Your task to perform on an android device: Open the calendar and show me this week's events? Image 0: 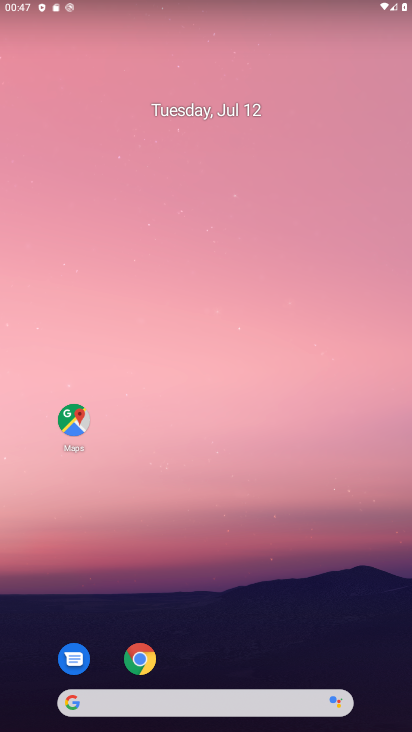
Step 0: drag from (191, 649) to (224, 168)
Your task to perform on an android device: Open the calendar and show me this week's events? Image 1: 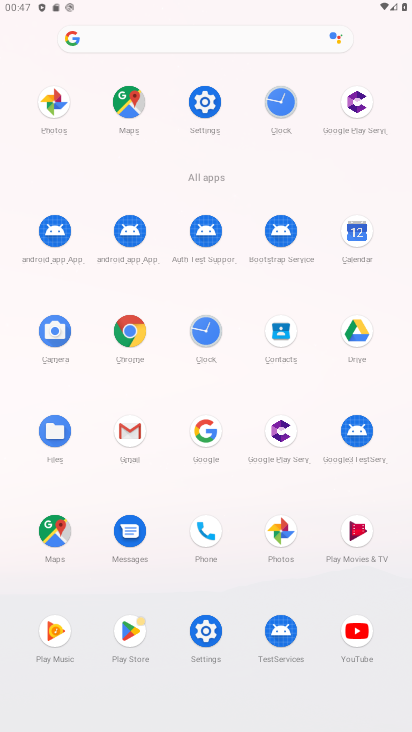
Step 1: click (362, 233)
Your task to perform on an android device: Open the calendar and show me this week's events? Image 2: 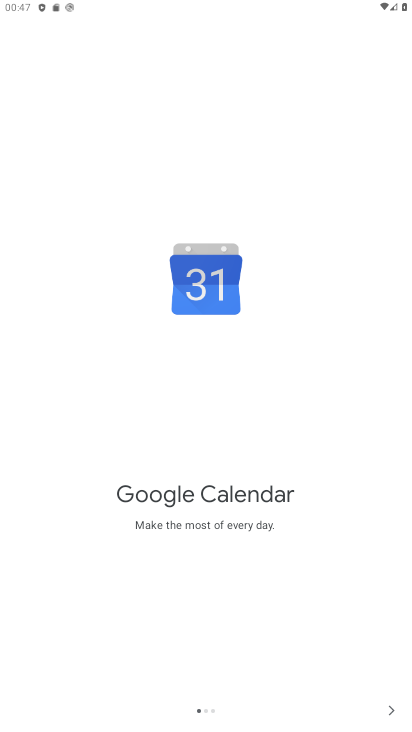
Step 2: drag from (238, 598) to (240, 376)
Your task to perform on an android device: Open the calendar and show me this week's events? Image 3: 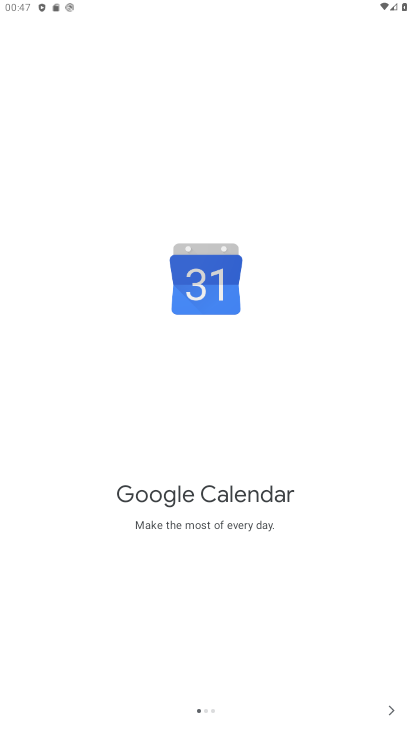
Step 3: click (391, 711)
Your task to perform on an android device: Open the calendar and show me this week's events? Image 4: 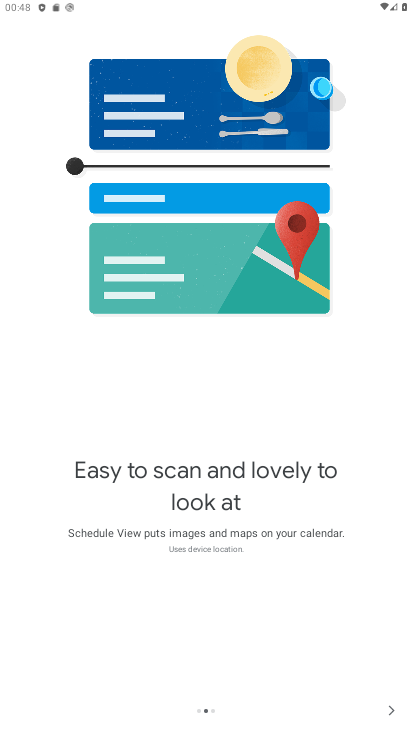
Step 4: click (391, 710)
Your task to perform on an android device: Open the calendar and show me this week's events? Image 5: 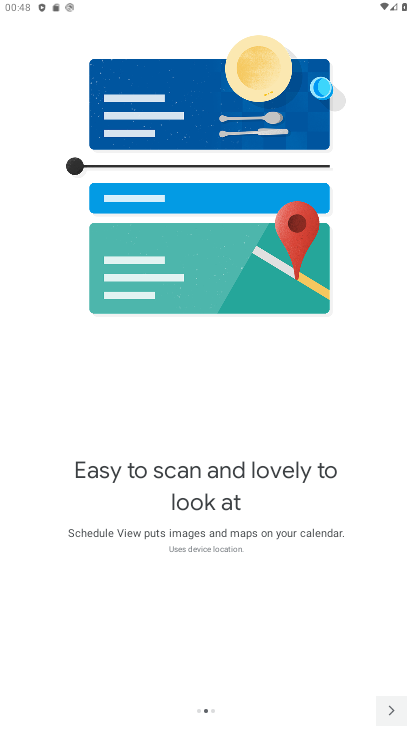
Step 5: click (391, 710)
Your task to perform on an android device: Open the calendar and show me this week's events? Image 6: 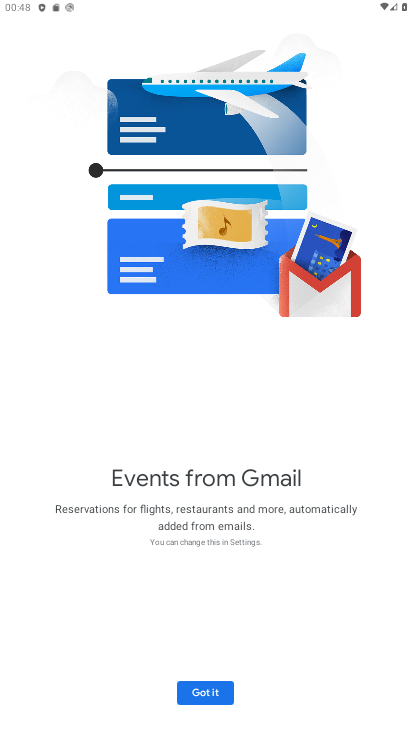
Step 6: click (389, 709)
Your task to perform on an android device: Open the calendar and show me this week's events? Image 7: 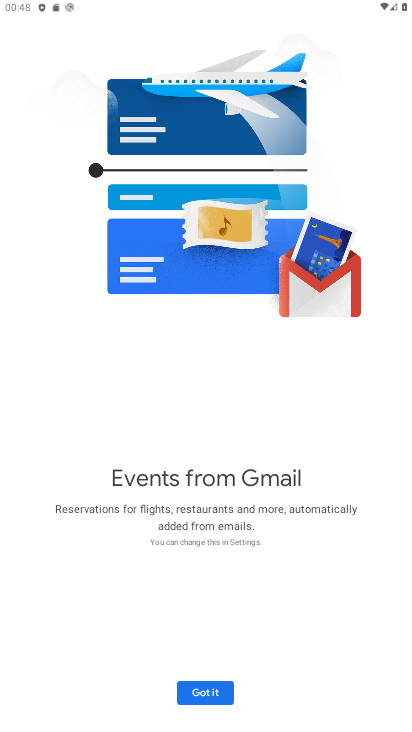
Step 7: click (223, 699)
Your task to perform on an android device: Open the calendar and show me this week's events? Image 8: 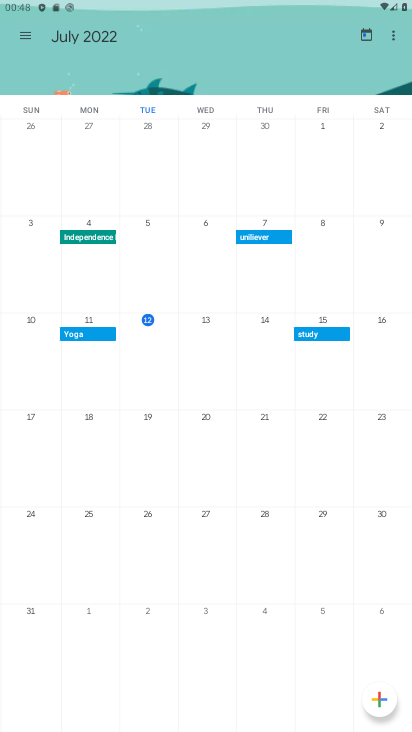
Step 8: click (81, 40)
Your task to perform on an android device: Open the calendar and show me this week's events? Image 9: 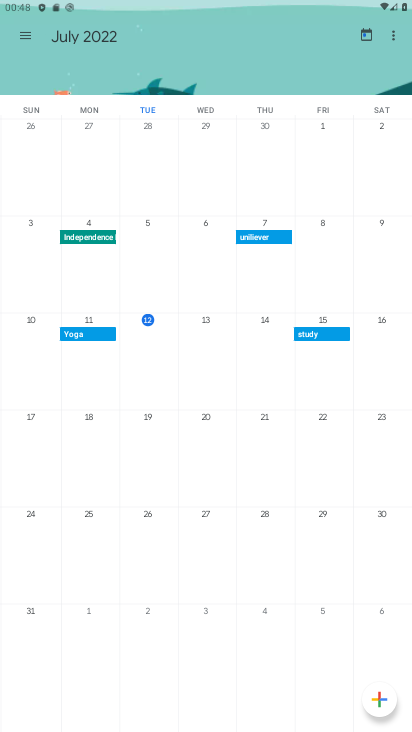
Step 9: click (367, 31)
Your task to perform on an android device: Open the calendar and show me this week's events? Image 10: 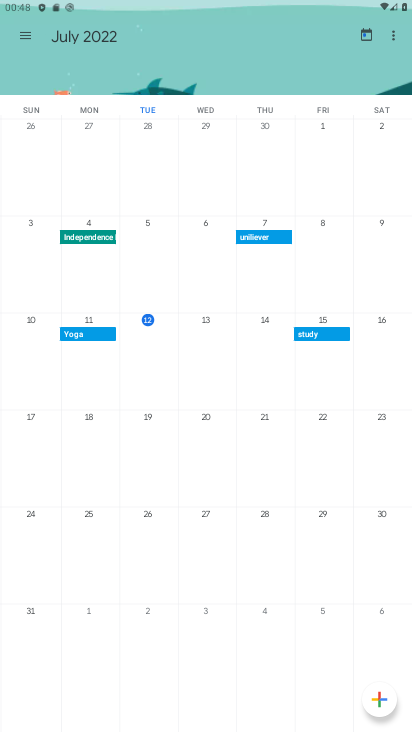
Step 10: drag from (261, 542) to (304, 3)
Your task to perform on an android device: Open the calendar and show me this week's events? Image 11: 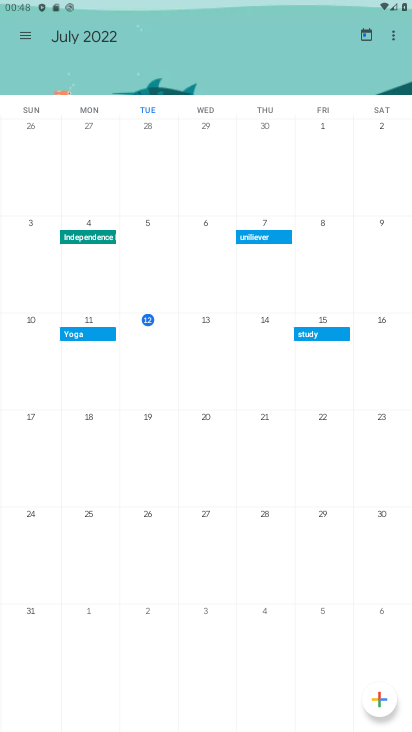
Step 11: drag from (324, 412) to (32, 439)
Your task to perform on an android device: Open the calendar and show me this week's events? Image 12: 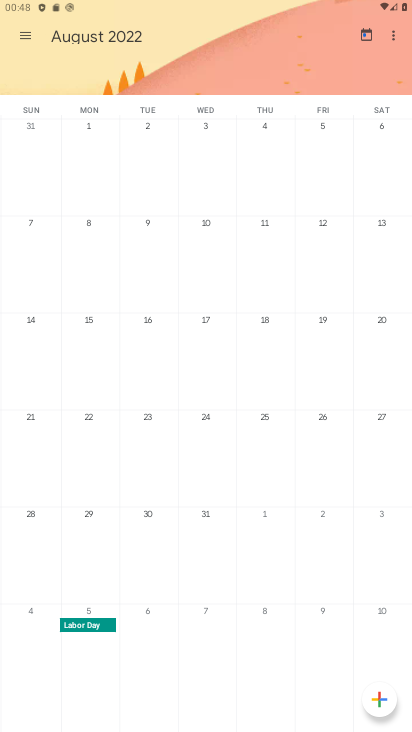
Step 12: drag from (90, 373) to (401, 266)
Your task to perform on an android device: Open the calendar and show me this week's events? Image 13: 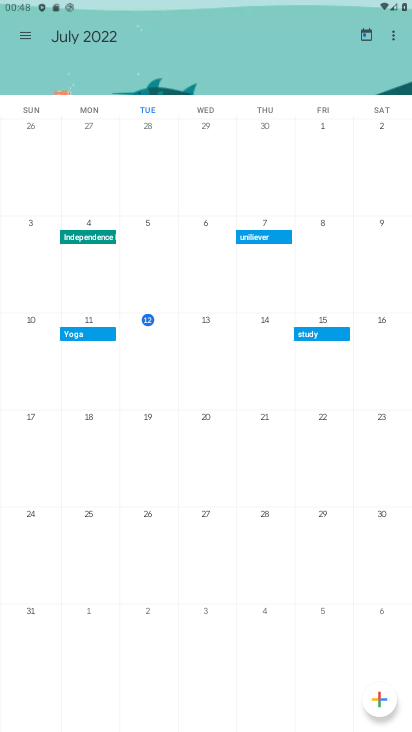
Step 13: click (323, 319)
Your task to perform on an android device: Open the calendar and show me this week's events? Image 14: 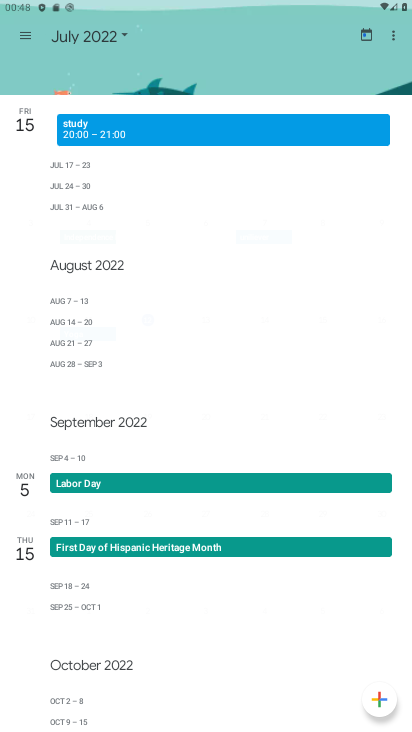
Step 14: task complete